Your task to perform on an android device: make emails show in primary in the gmail app Image 0: 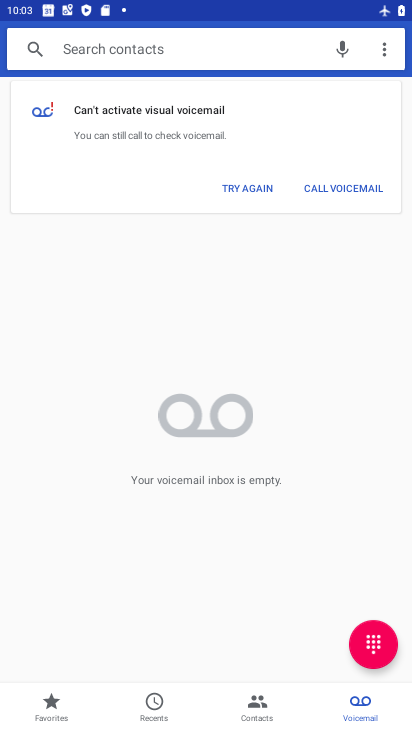
Step 0: press home button
Your task to perform on an android device: make emails show in primary in the gmail app Image 1: 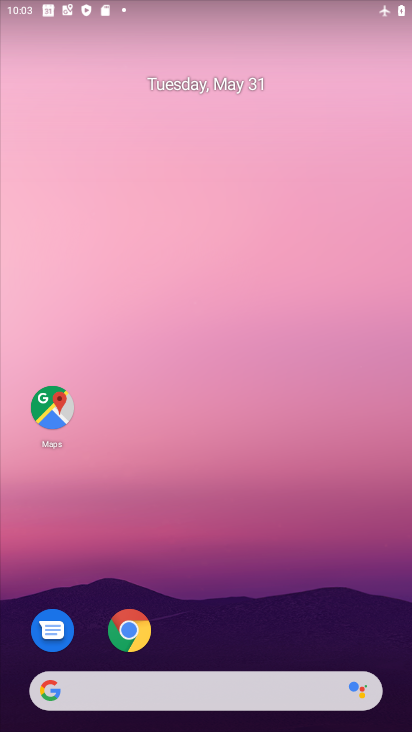
Step 1: drag from (256, 654) to (230, 233)
Your task to perform on an android device: make emails show in primary in the gmail app Image 2: 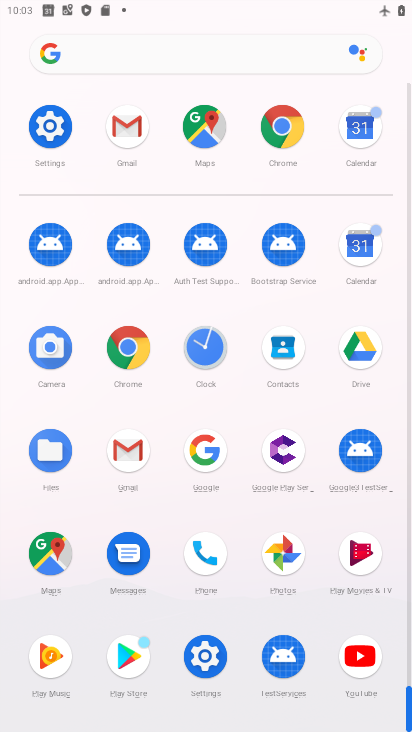
Step 2: click (133, 447)
Your task to perform on an android device: make emails show in primary in the gmail app Image 3: 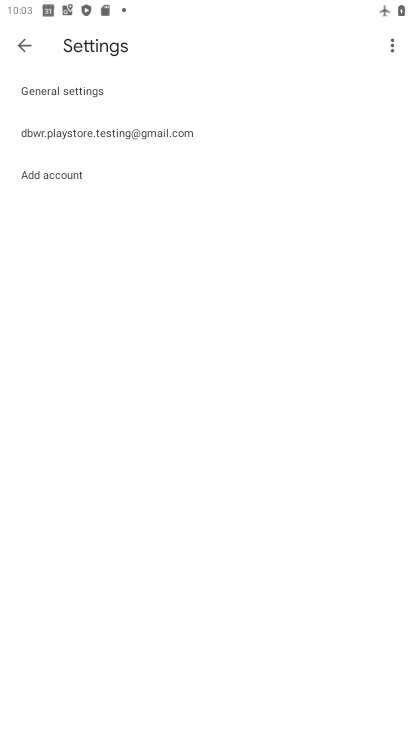
Step 3: click (84, 126)
Your task to perform on an android device: make emails show in primary in the gmail app Image 4: 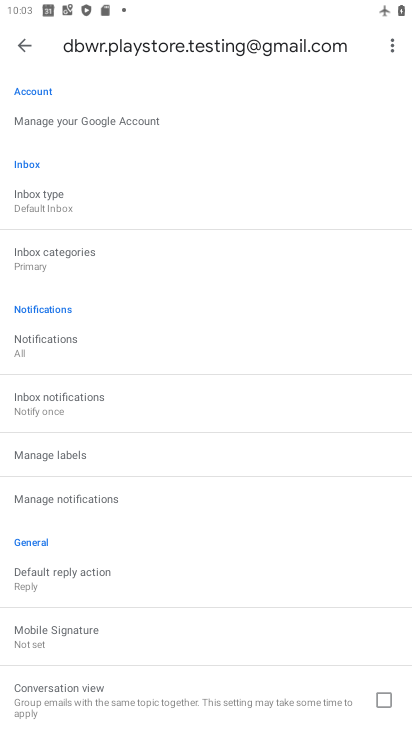
Step 4: task complete